Your task to perform on an android device: Open Wikipedia Image 0: 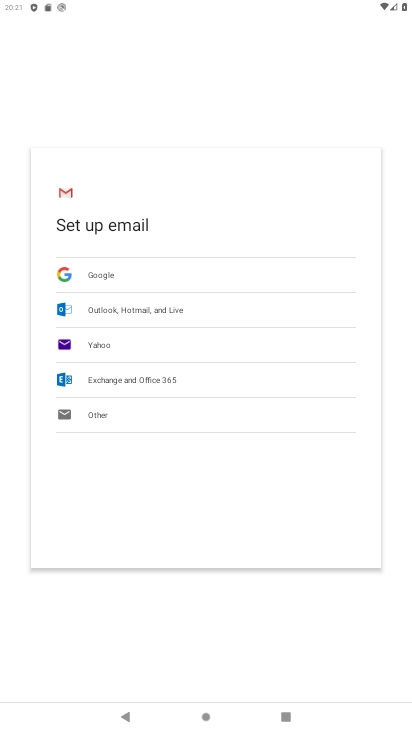
Step 0: press home button
Your task to perform on an android device: Open Wikipedia Image 1: 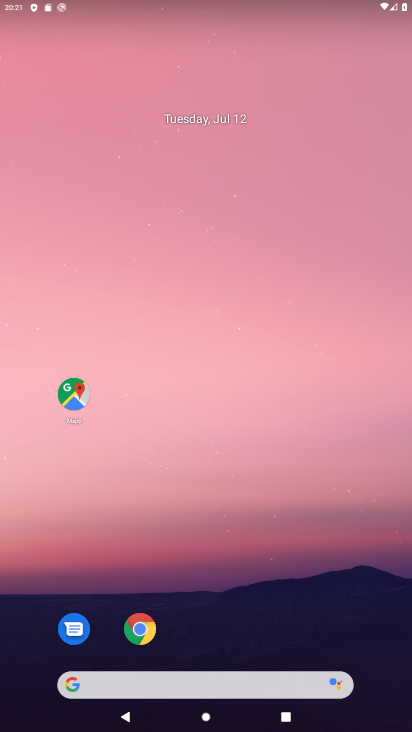
Step 1: click (179, 690)
Your task to perform on an android device: Open Wikipedia Image 2: 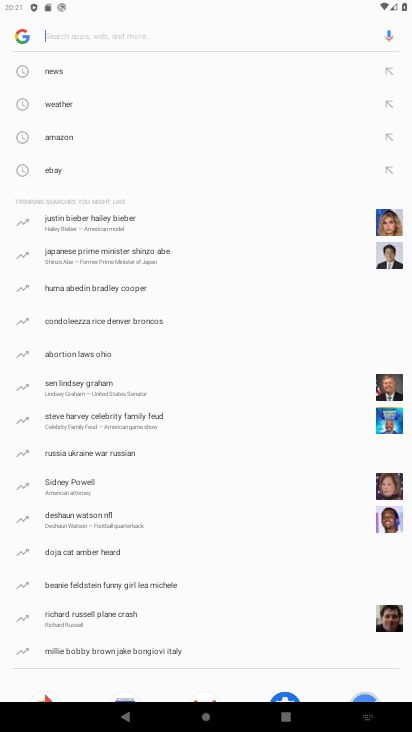
Step 2: type "wikipedia"
Your task to perform on an android device: Open Wikipedia Image 3: 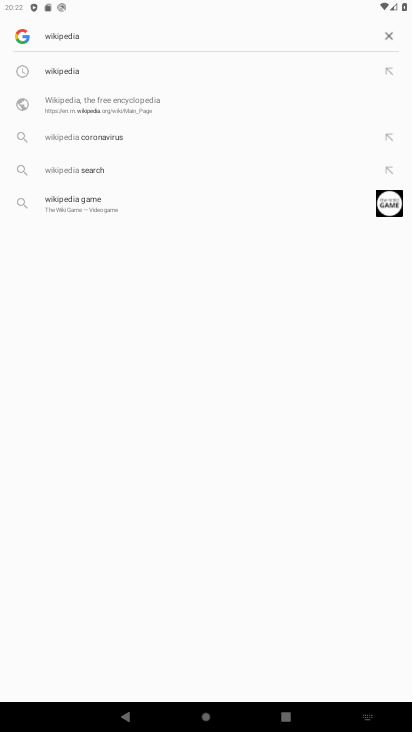
Step 3: click (67, 73)
Your task to perform on an android device: Open Wikipedia Image 4: 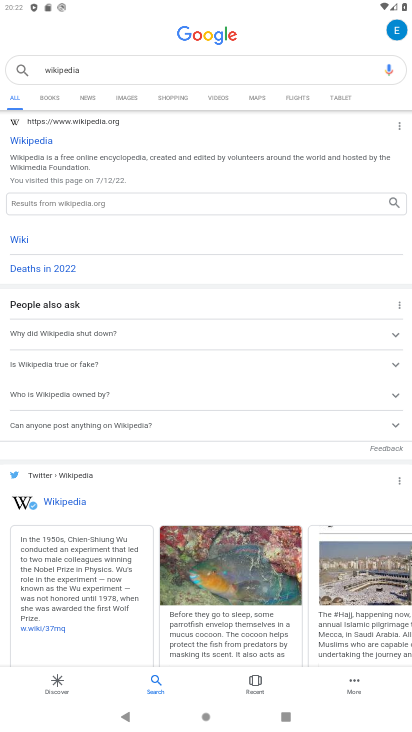
Step 4: click (54, 121)
Your task to perform on an android device: Open Wikipedia Image 5: 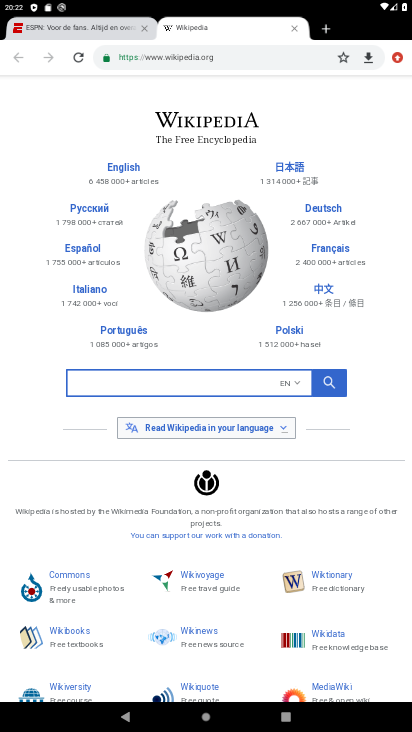
Step 5: task complete